Your task to perform on an android device: Open calendar and show me the second week of next month Image 0: 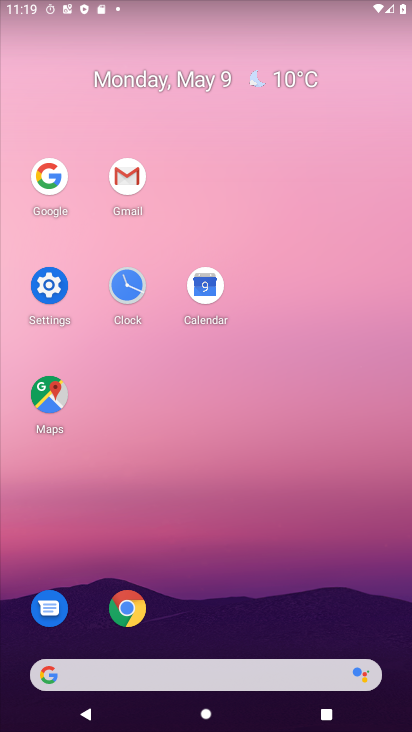
Step 0: click (193, 288)
Your task to perform on an android device: Open calendar and show me the second week of next month Image 1: 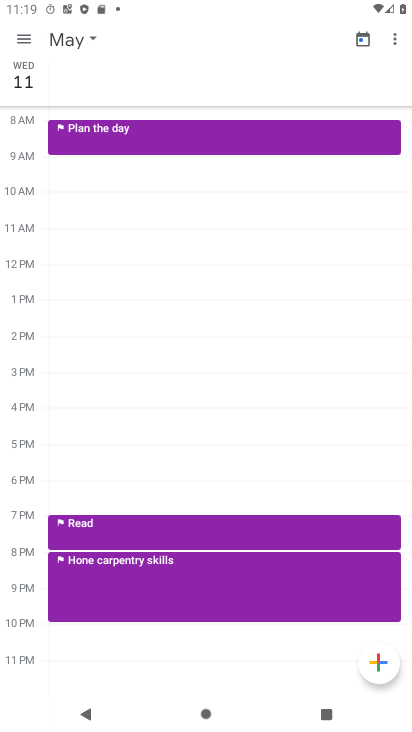
Step 1: click (85, 36)
Your task to perform on an android device: Open calendar and show me the second week of next month Image 2: 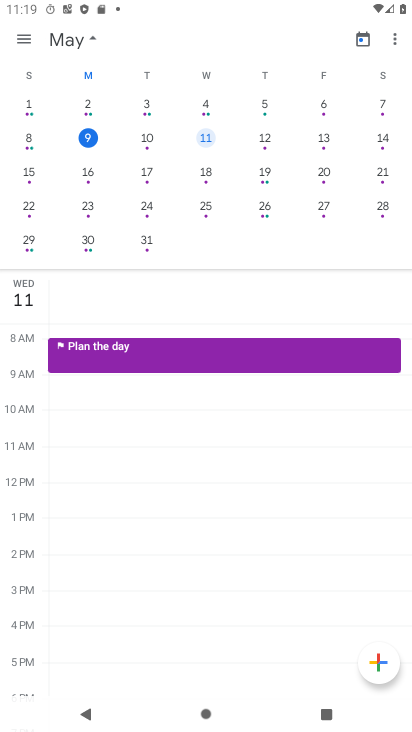
Step 2: drag from (295, 174) to (4, 122)
Your task to perform on an android device: Open calendar and show me the second week of next month Image 3: 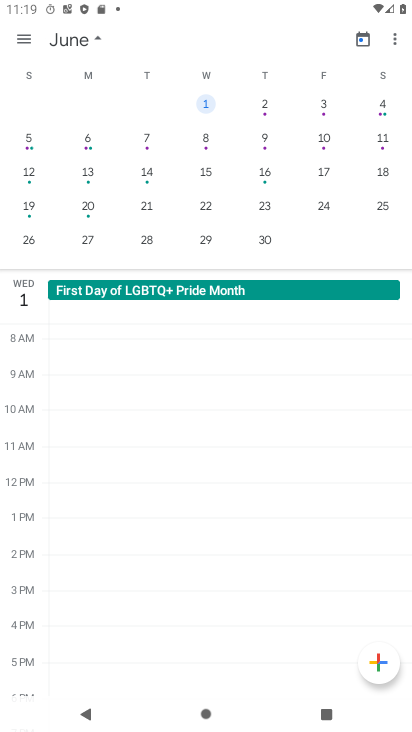
Step 3: click (28, 42)
Your task to perform on an android device: Open calendar and show me the second week of next month Image 4: 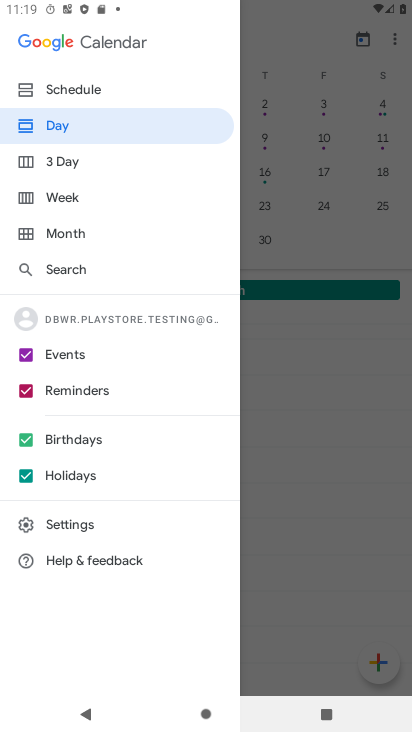
Step 4: click (97, 191)
Your task to perform on an android device: Open calendar and show me the second week of next month Image 5: 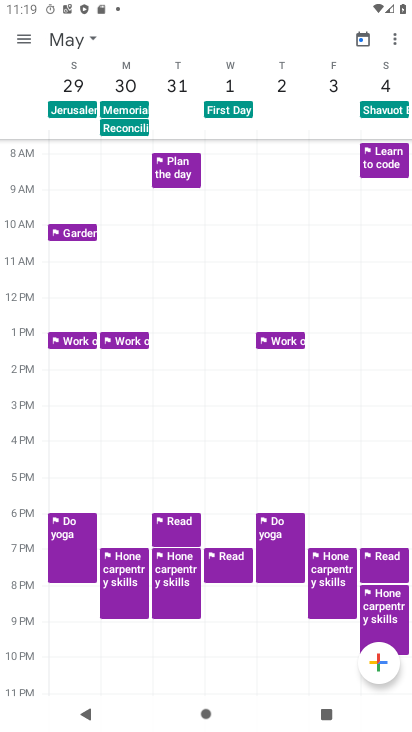
Step 5: task complete